Your task to perform on an android device: move a message to another label in the gmail app Image 0: 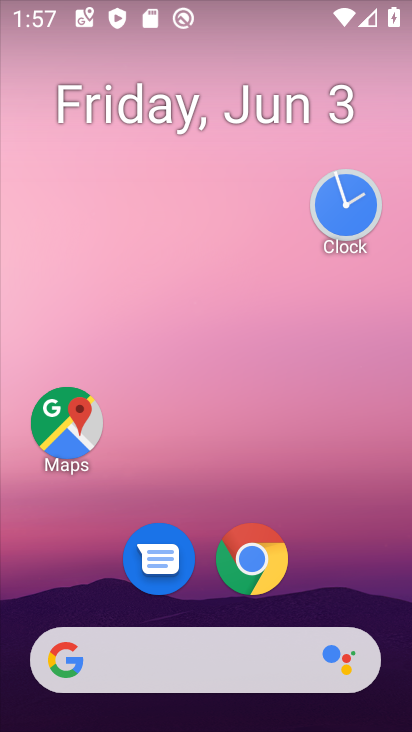
Step 0: drag from (372, 536) to (356, 286)
Your task to perform on an android device: move a message to another label in the gmail app Image 1: 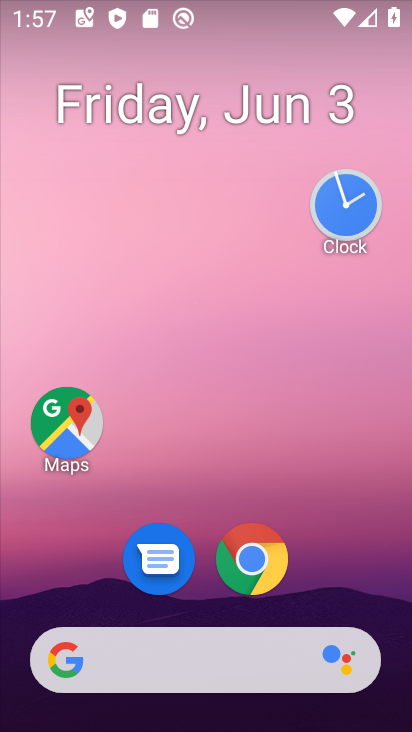
Step 1: drag from (369, 532) to (289, 225)
Your task to perform on an android device: move a message to another label in the gmail app Image 2: 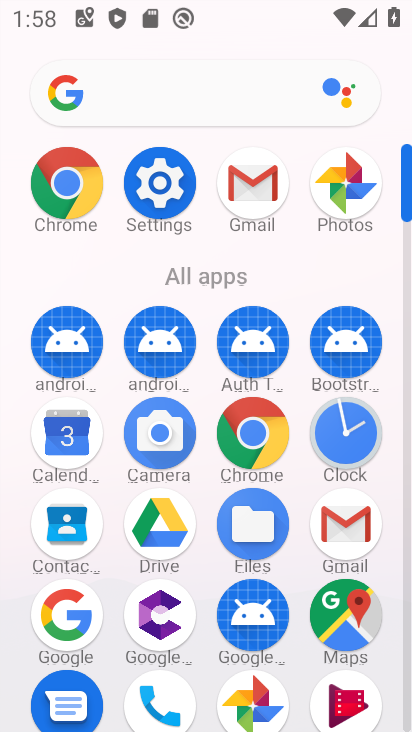
Step 2: click (263, 200)
Your task to perform on an android device: move a message to another label in the gmail app Image 3: 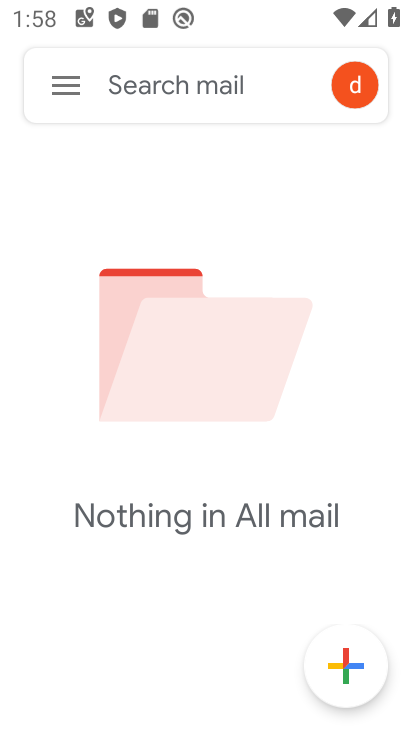
Step 3: click (48, 86)
Your task to perform on an android device: move a message to another label in the gmail app Image 4: 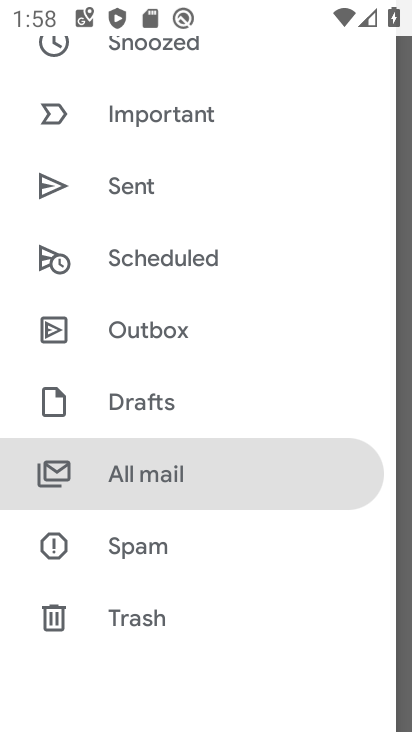
Step 4: click (170, 490)
Your task to perform on an android device: move a message to another label in the gmail app Image 5: 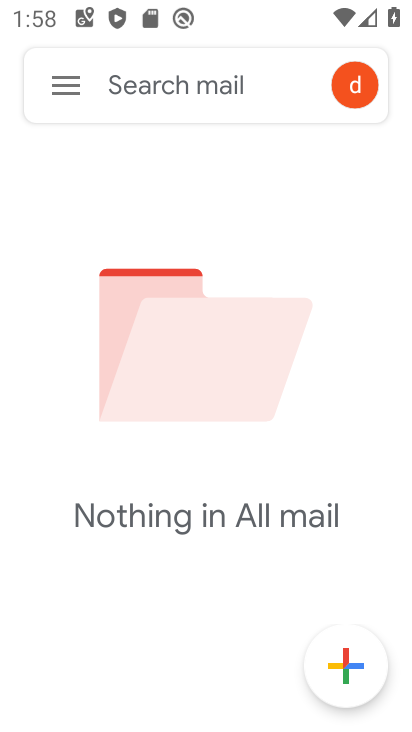
Step 5: task complete